Your task to perform on an android device: Open calendar and show me the first week of next month Image 0: 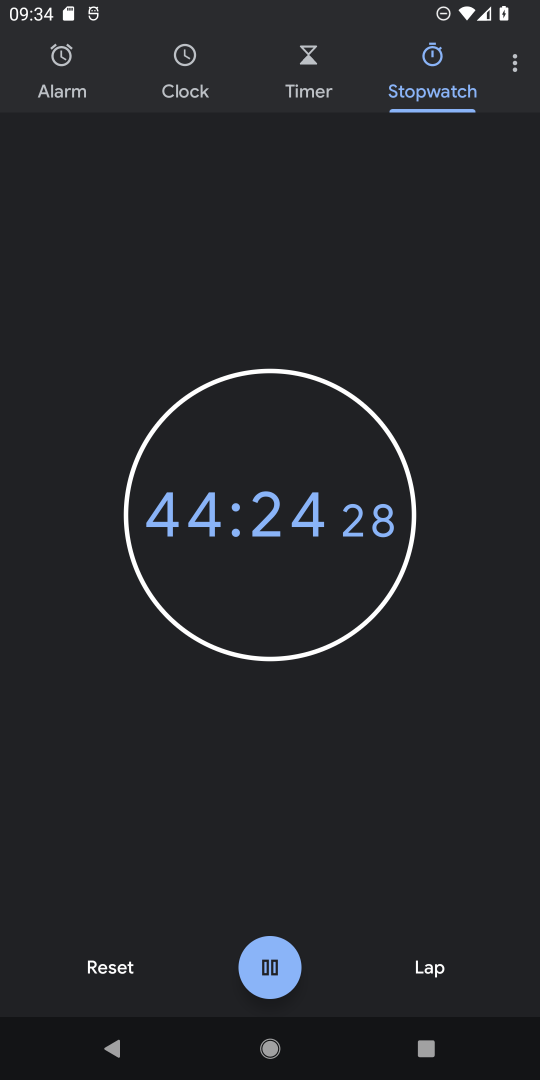
Step 0: press home button
Your task to perform on an android device: Open calendar and show me the first week of next month Image 1: 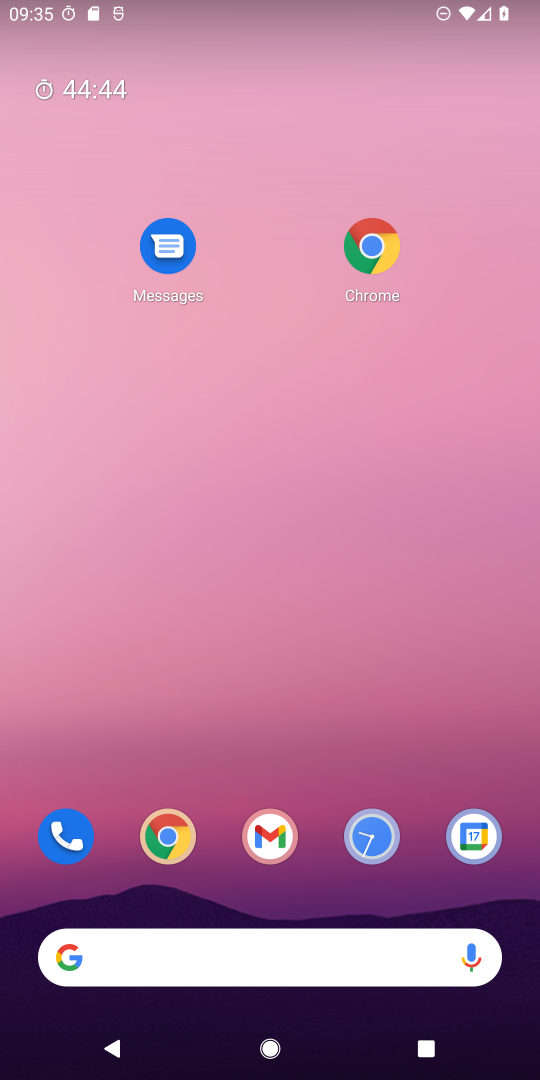
Step 1: drag from (242, 764) to (236, 365)
Your task to perform on an android device: Open calendar and show me the first week of next month Image 2: 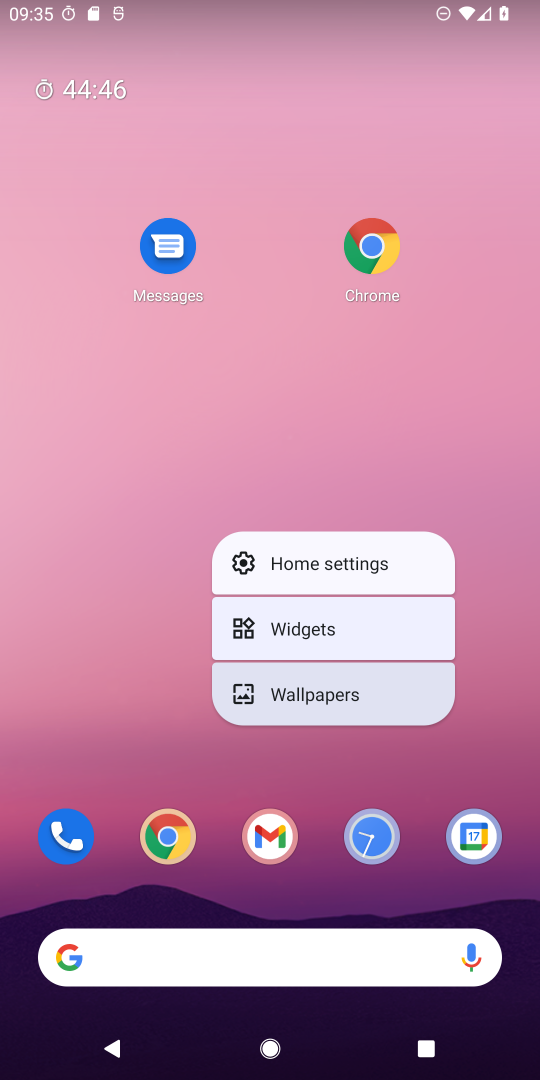
Step 2: click (150, 654)
Your task to perform on an android device: Open calendar and show me the first week of next month Image 3: 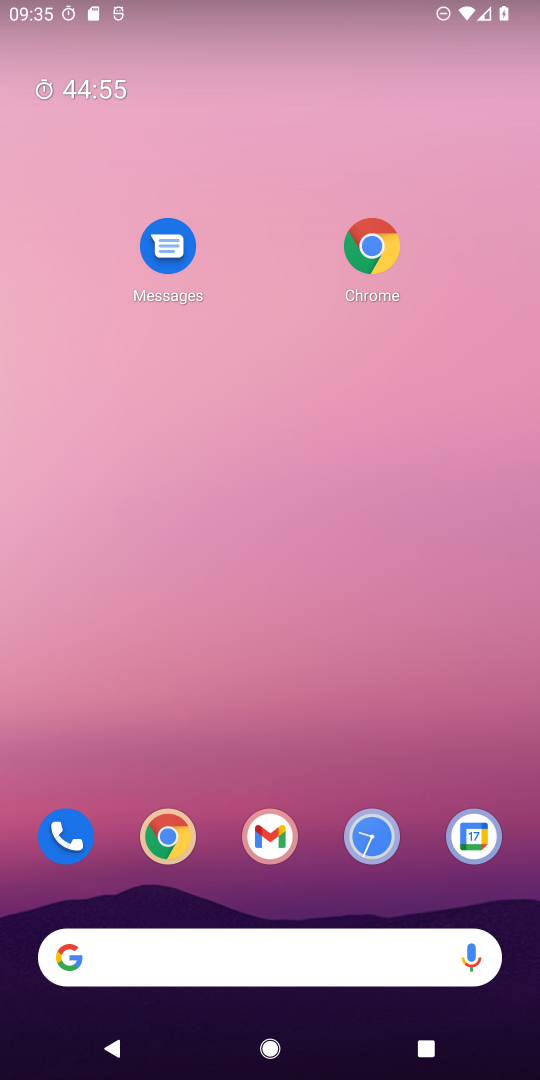
Step 3: drag from (214, 572) to (233, 243)
Your task to perform on an android device: Open calendar and show me the first week of next month Image 4: 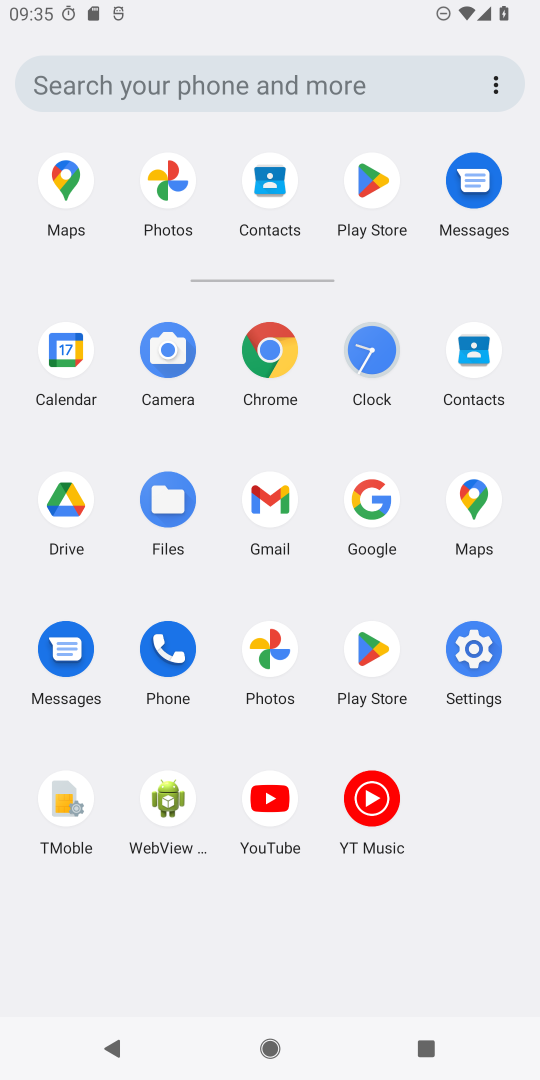
Step 4: click (52, 345)
Your task to perform on an android device: Open calendar and show me the first week of next month Image 5: 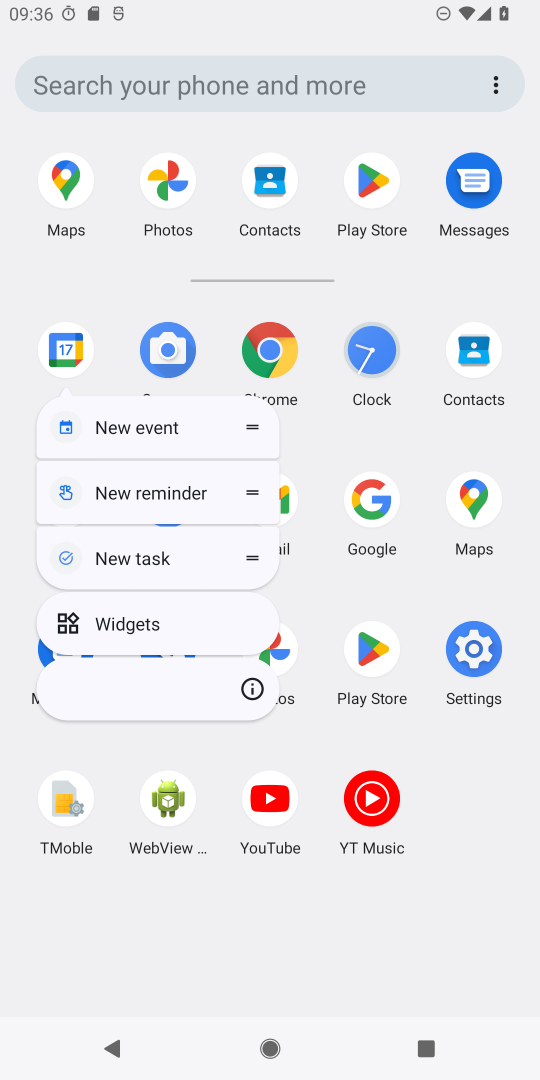
Step 5: click (58, 340)
Your task to perform on an android device: Open calendar and show me the first week of next month Image 6: 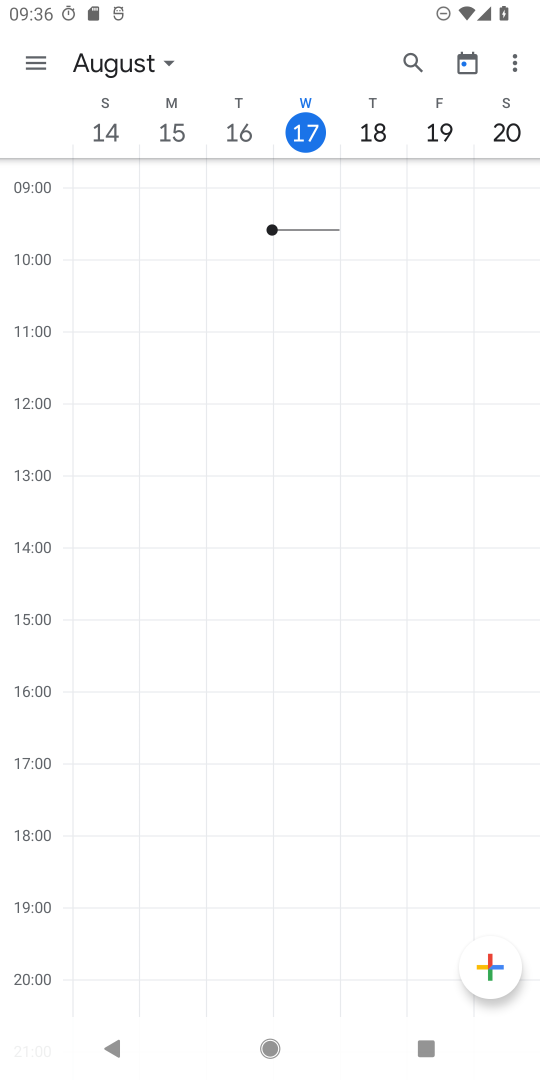
Step 6: task complete